Your task to perform on an android device: Search for Italian restaurants on Maps Image 0: 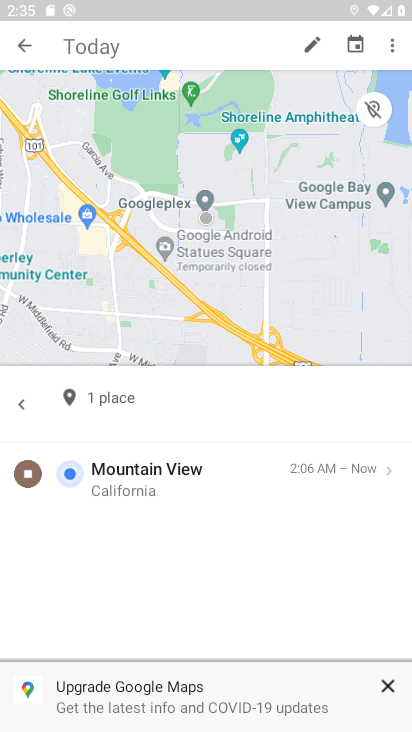
Step 0: press home button
Your task to perform on an android device: Search for Italian restaurants on Maps Image 1: 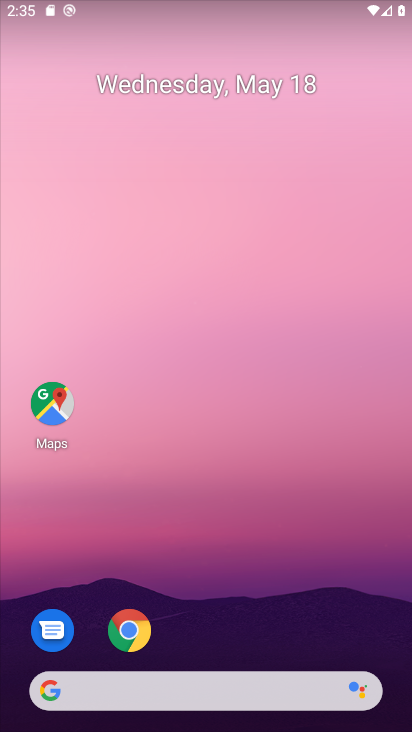
Step 1: click (51, 395)
Your task to perform on an android device: Search for Italian restaurants on Maps Image 2: 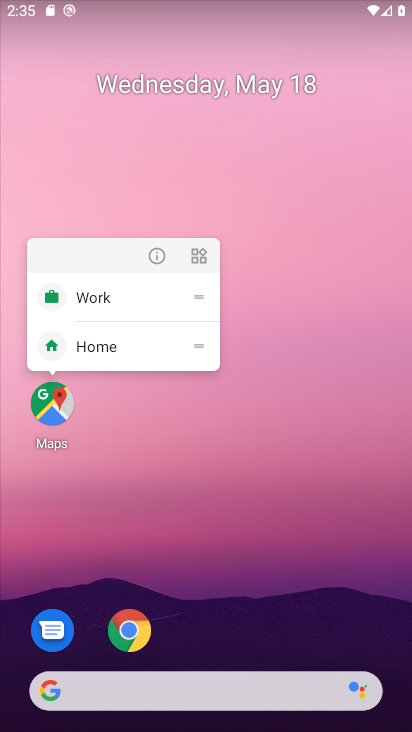
Step 2: click (51, 395)
Your task to perform on an android device: Search for Italian restaurants on Maps Image 3: 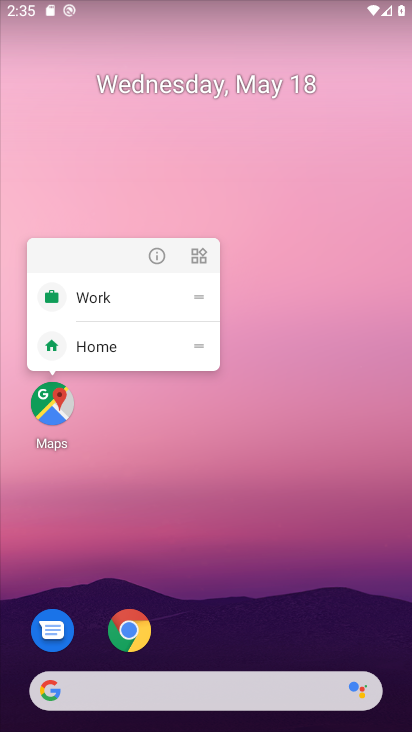
Step 3: click (60, 386)
Your task to perform on an android device: Search for Italian restaurants on Maps Image 4: 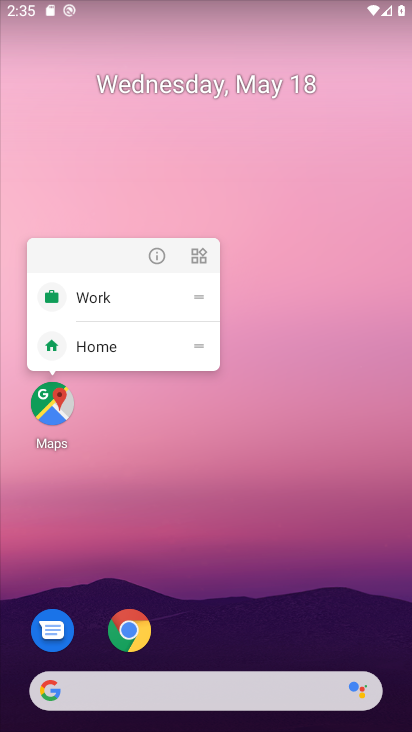
Step 4: click (55, 393)
Your task to perform on an android device: Search for Italian restaurants on Maps Image 5: 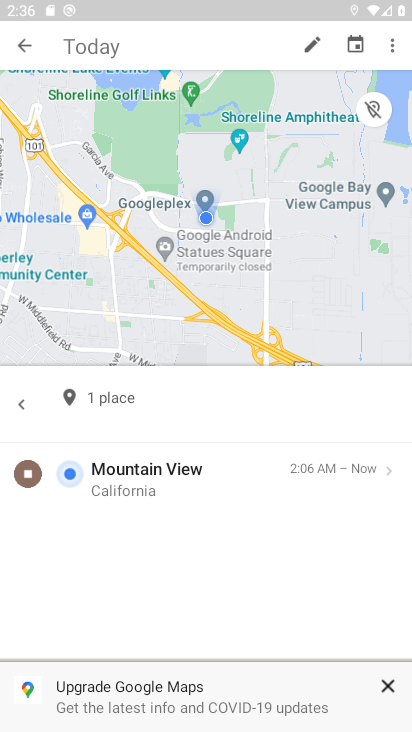
Step 5: click (18, 40)
Your task to perform on an android device: Search for Italian restaurants on Maps Image 6: 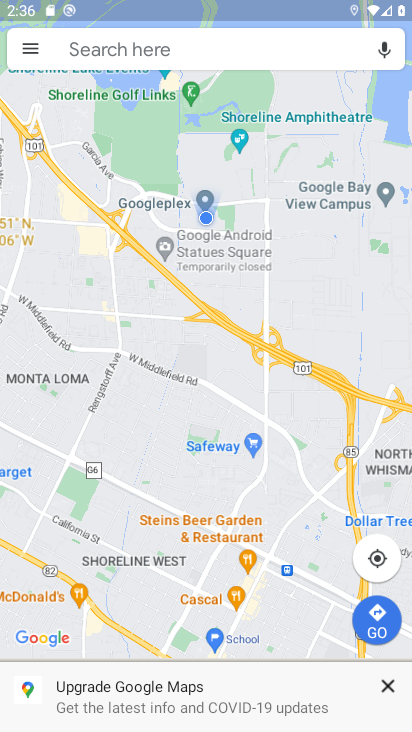
Step 6: click (142, 42)
Your task to perform on an android device: Search for Italian restaurants on Maps Image 7: 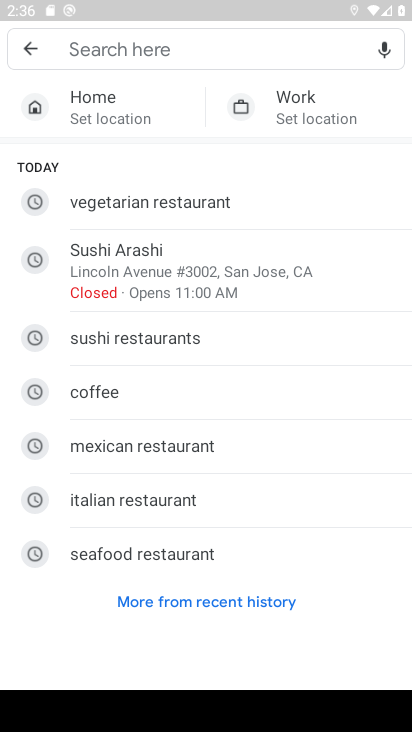
Step 7: click (109, 501)
Your task to perform on an android device: Search for Italian restaurants on Maps Image 8: 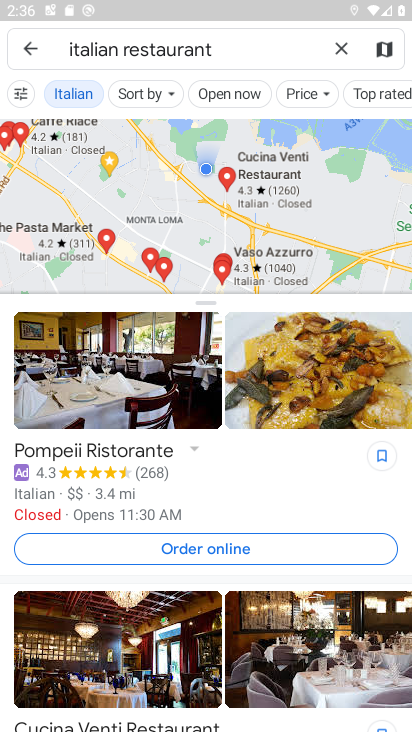
Step 8: task complete